Your task to perform on an android device: add a label to a message in the gmail app Image 0: 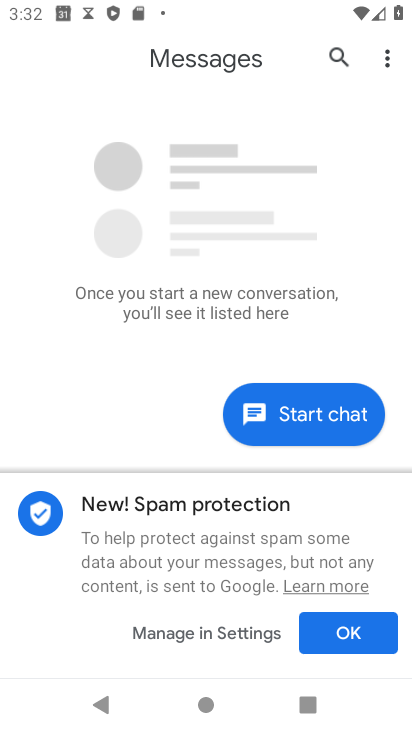
Step 0: press home button
Your task to perform on an android device: add a label to a message in the gmail app Image 1: 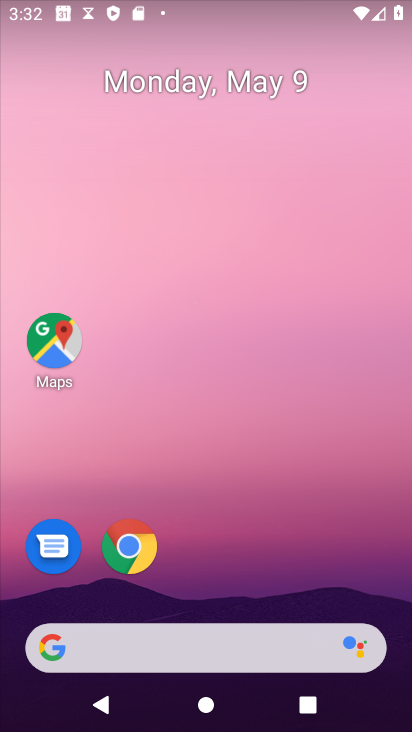
Step 1: drag from (297, 531) to (271, 118)
Your task to perform on an android device: add a label to a message in the gmail app Image 2: 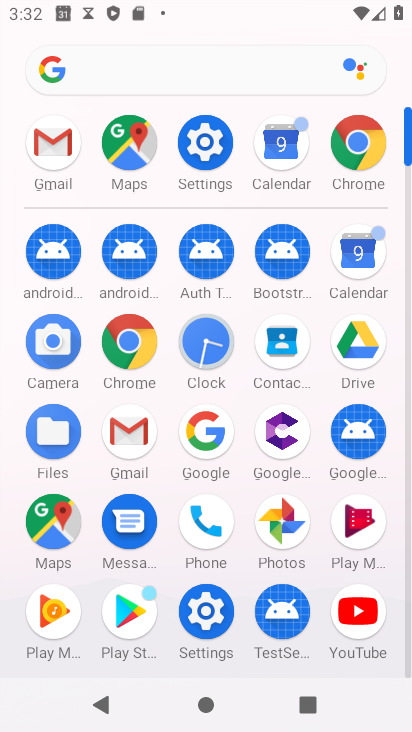
Step 2: click (42, 126)
Your task to perform on an android device: add a label to a message in the gmail app Image 3: 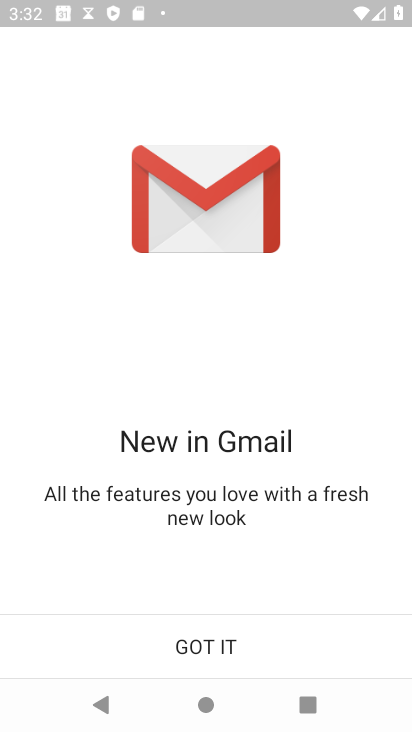
Step 3: click (194, 645)
Your task to perform on an android device: add a label to a message in the gmail app Image 4: 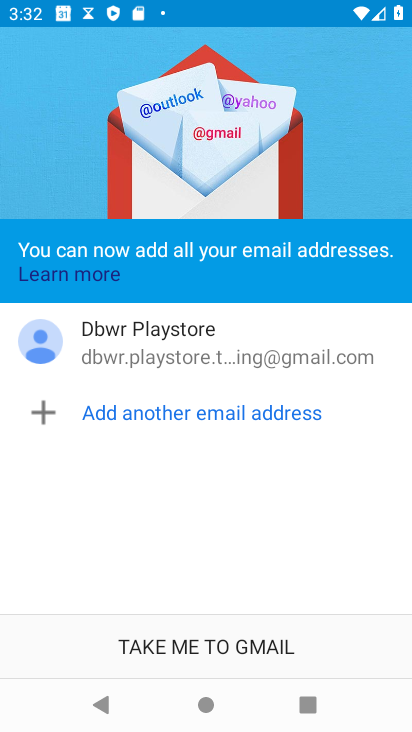
Step 4: click (194, 645)
Your task to perform on an android device: add a label to a message in the gmail app Image 5: 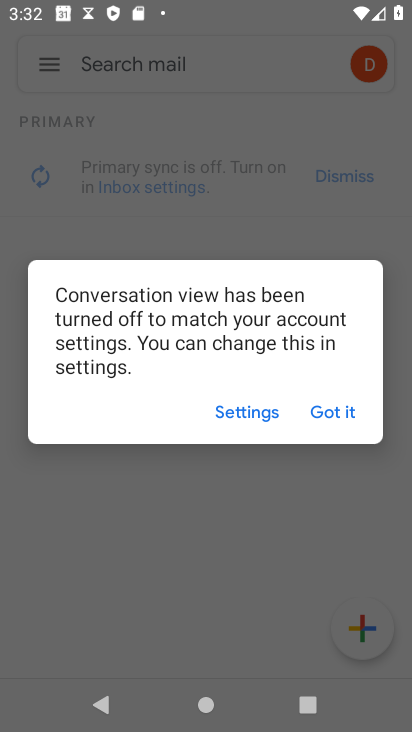
Step 5: click (334, 406)
Your task to perform on an android device: add a label to a message in the gmail app Image 6: 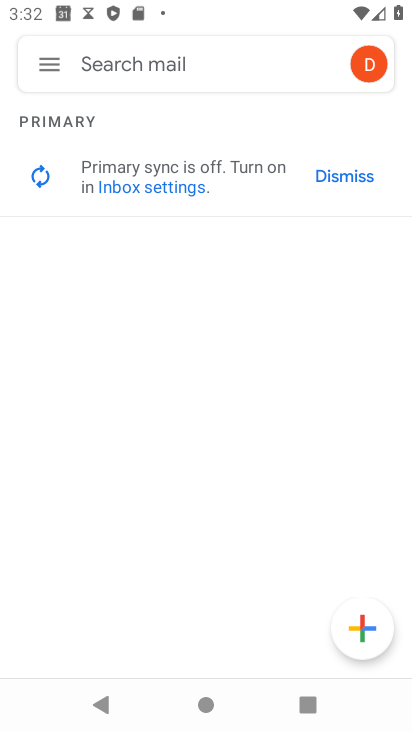
Step 6: click (49, 52)
Your task to perform on an android device: add a label to a message in the gmail app Image 7: 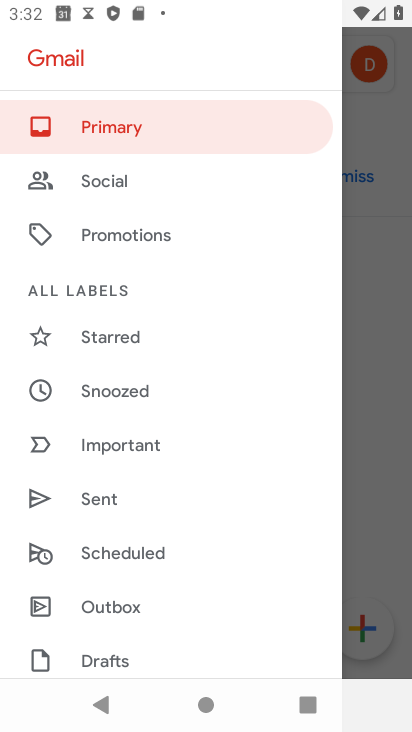
Step 7: drag from (201, 613) to (200, 270)
Your task to perform on an android device: add a label to a message in the gmail app Image 8: 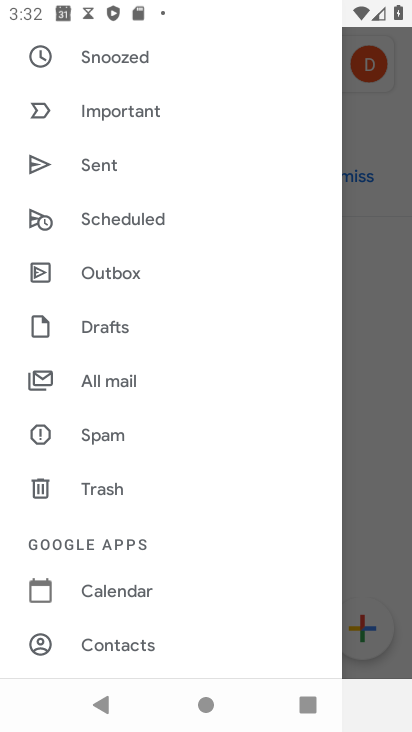
Step 8: click (141, 378)
Your task to perform on an android device: add a label to a message in the gmail app Image 9: 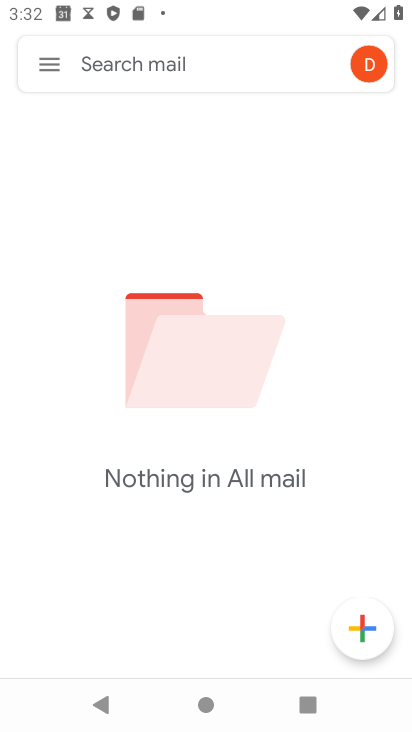
Step 9: task complete